Your task to perform on an android device: see creations saved in the google photos Image 0: 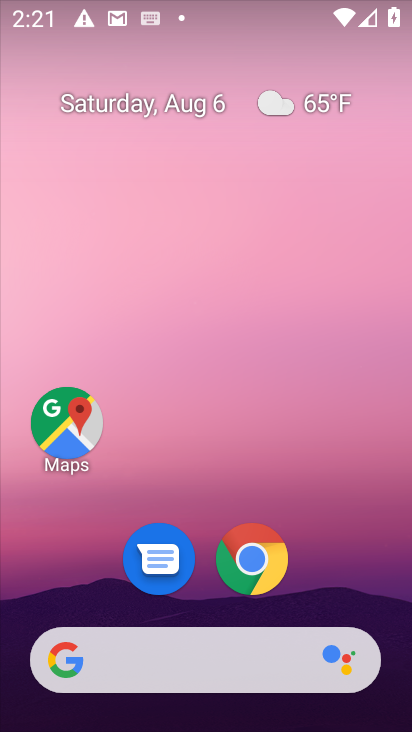
Step 0: drag from (199, 520) to (186, 168)
Your task to perform on an android device: see creations saved in the google photos Image 1: 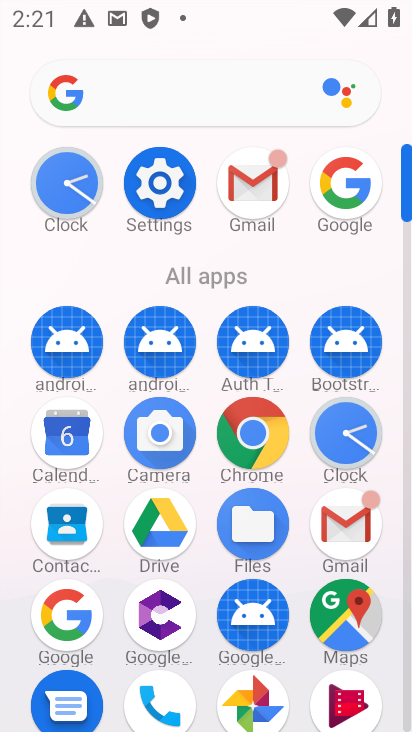
Step 1: drag from (196, 591) to (201, 306)
Your task to perform on an android device: see creations saved in the google photos Image 2: 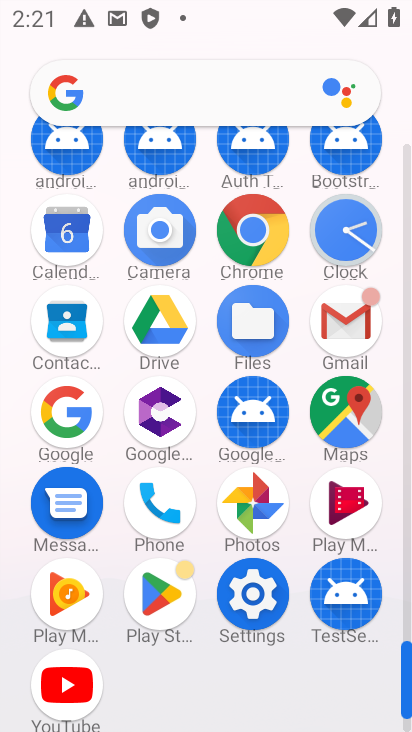
Step 2: click (252, 515)
Your task to perform on an android device: see creations saved in the google photos Image 3: 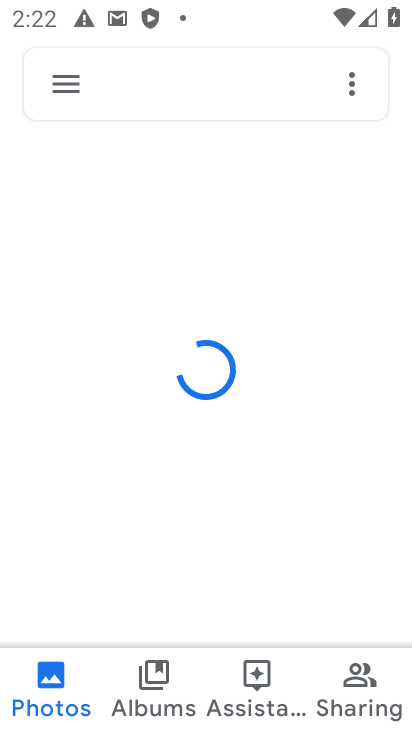
Step 3: click (198, 95)
Your task to perform on an android device: see creations saved in the google photos Image 4: 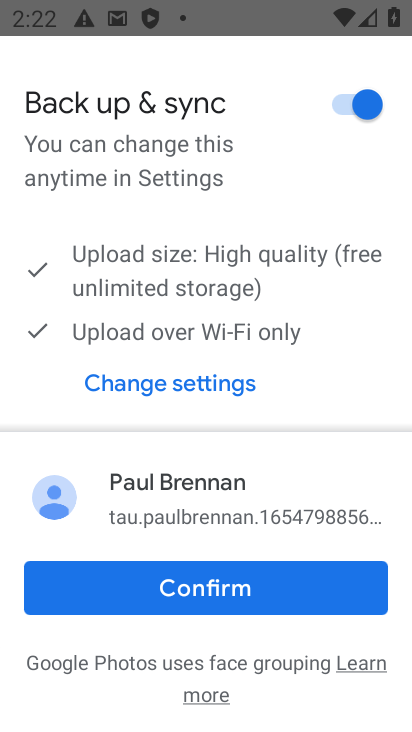
Step 4: click (229, 599)
Your task to perform on an android device: see creations saved in the google photos Image 5: 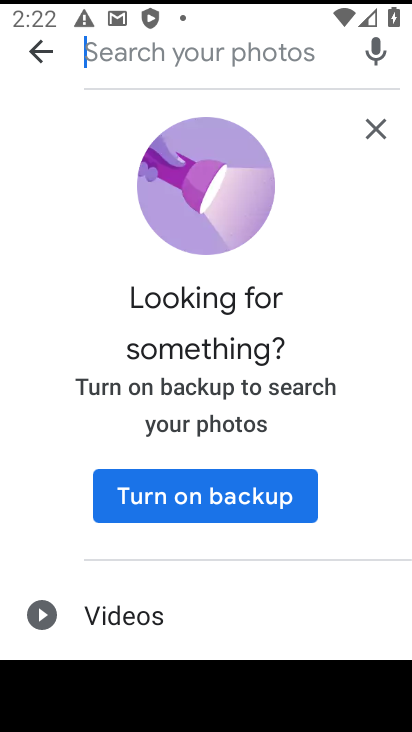
Step 5: click (189, 69)
Your task to perform on an android device: see creations saved in the google photos Image 6: 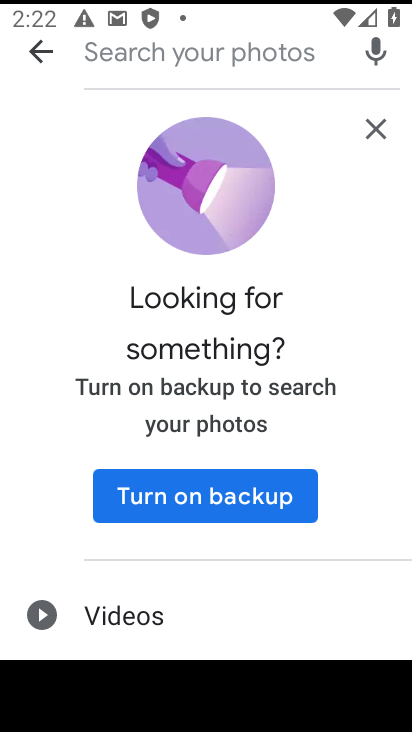
Step 6: drag from (255, 545) to (243, 183)
Your task to perform on an android device: see creations saved in the google photos Image 7: 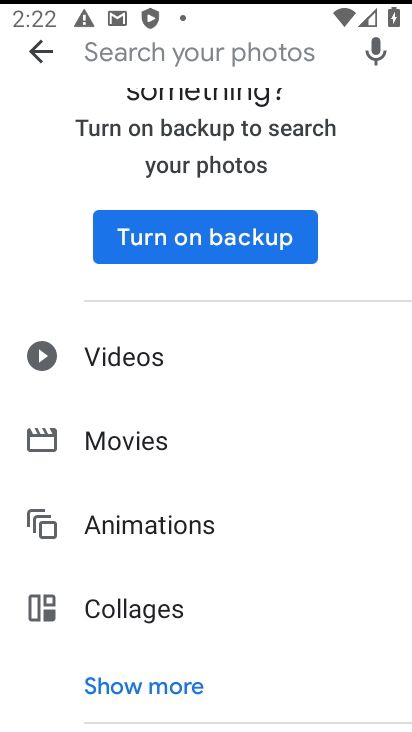
Step 7: click (167, 681)
Your task to perform on an android device: see creations saved in the google photos Image 8: 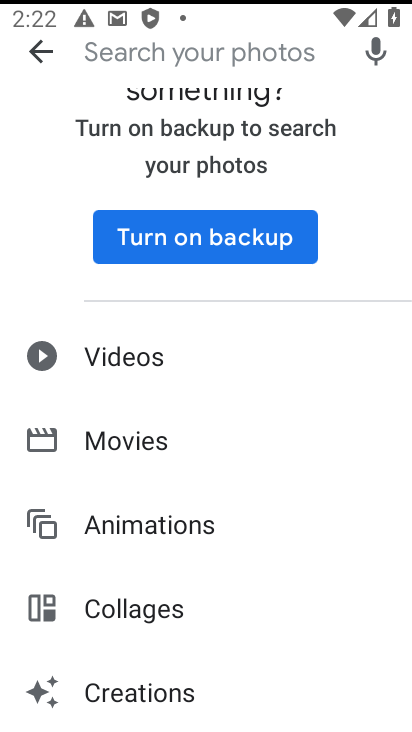
Step 8: click (183, 679)
Your task to perform on an android device: see creations saved in the google photos Image 9: 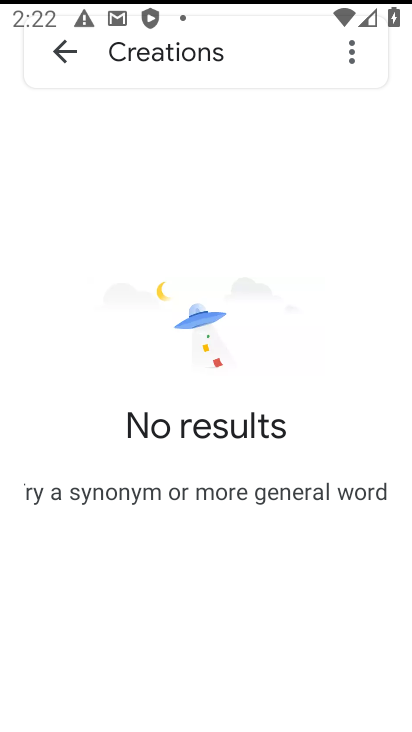
Step 9: task complete